Your task to perform on an android device: Empty the shopping cart on bestbuy.com. Search for usb-c on bestbuy.com, select the first entry, add it to the cart, then select checkout. Image 0: 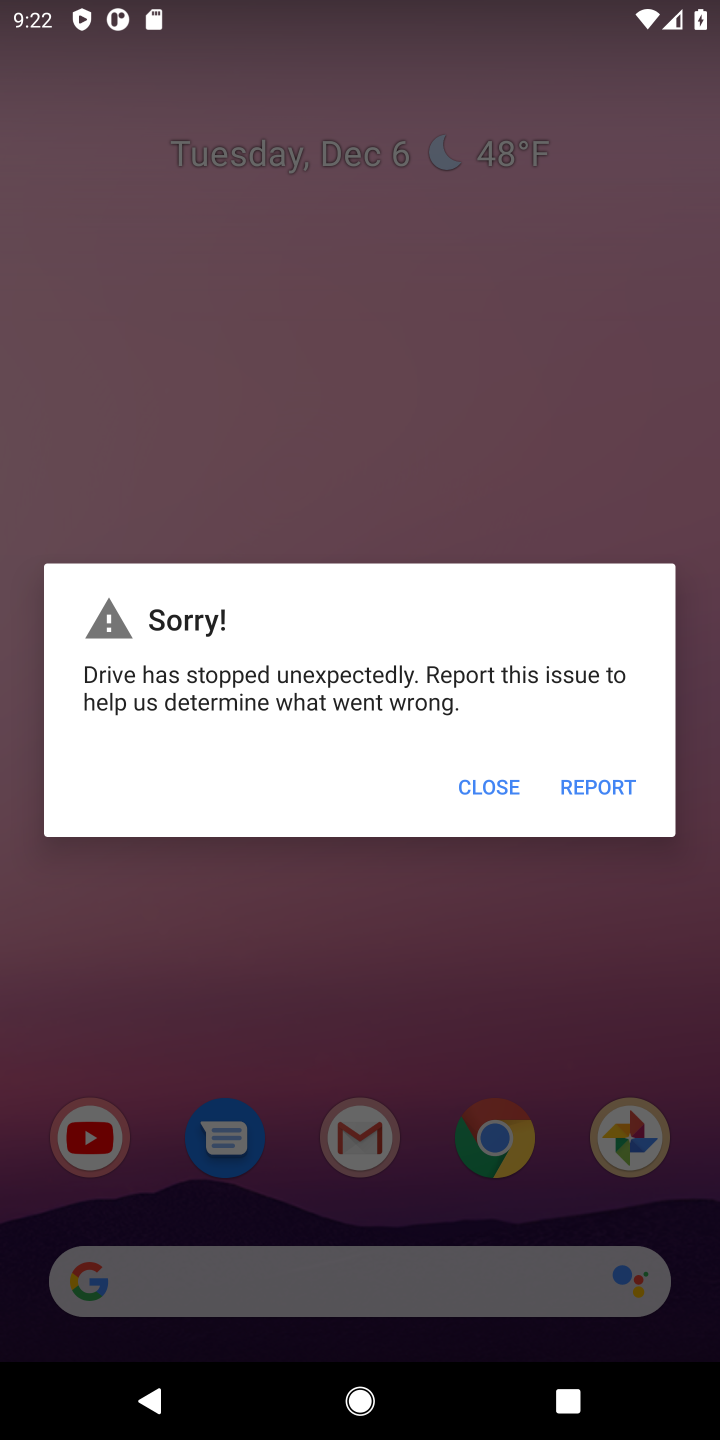
Step 0: press home button
Your task to perform on an android device: Empty the shopping cart on bestbuy.com. Search for usb-c on bestbuy.com, select the first entry, add it to the cart, then select checkout. Image 1: 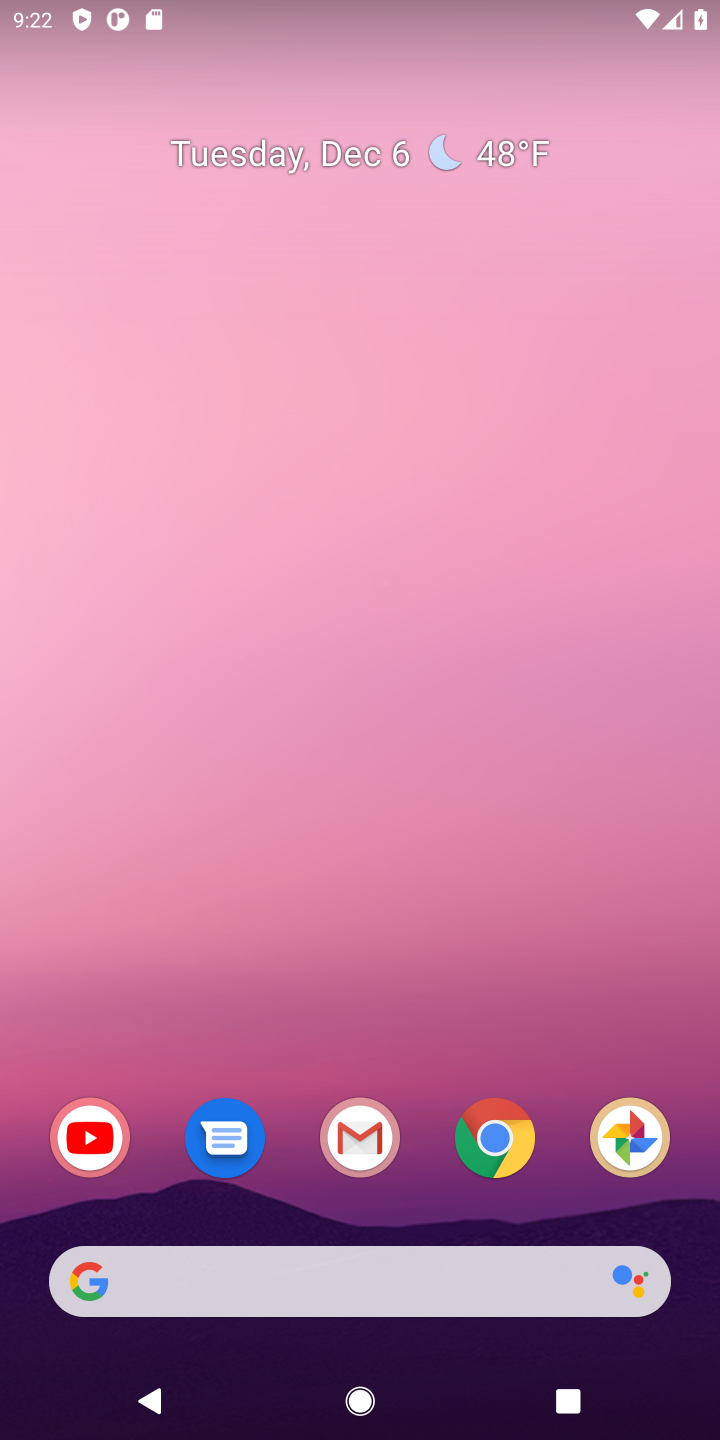
Step 1: click (517, 1139)
Your task to perform on an android device: Empty the shopping cart on bestbuy.com. Search for usb-c on bestbuy.com, select the first entry, add it to the cart, then select checkout. Image 2: 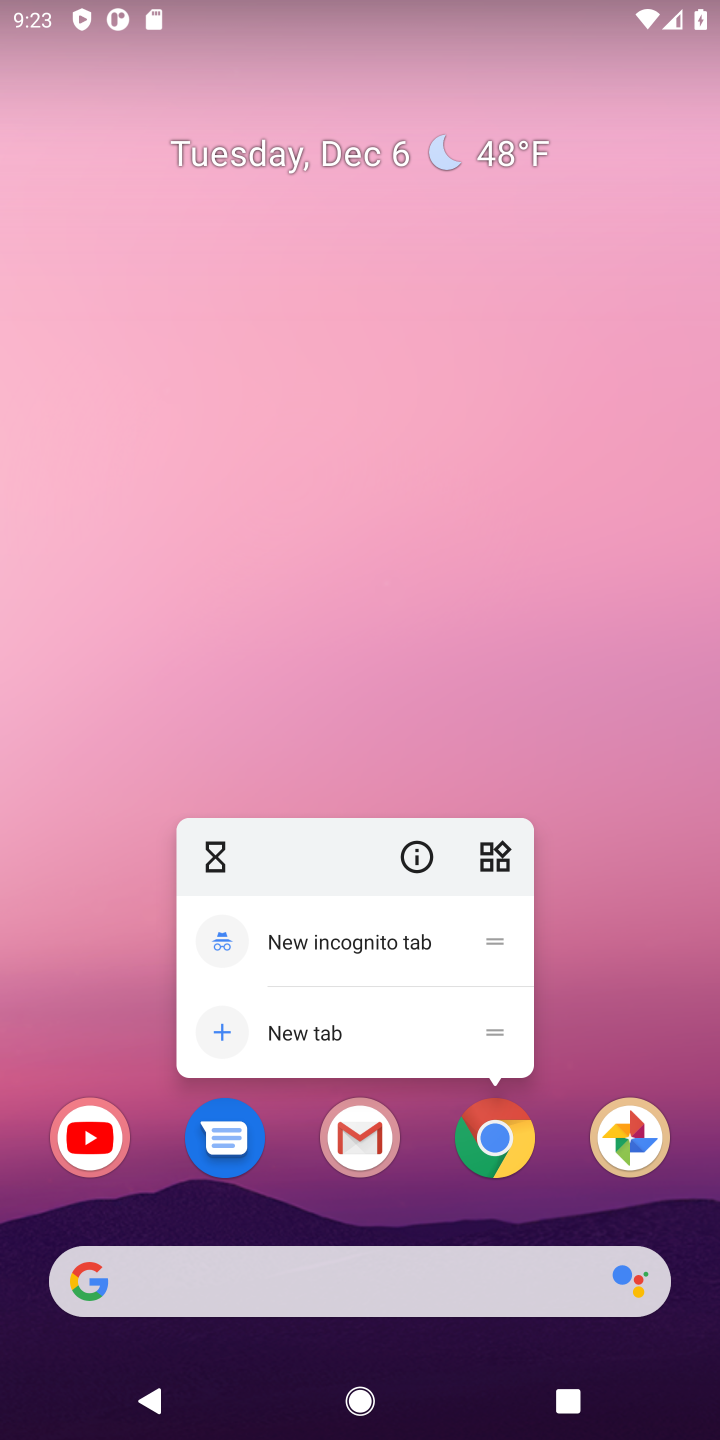
Step 2: click (517, 1139)
Your task to perform on an android device: Empty the shopping cart on bestbuy.com. Search for usb-c on bestbuy.com, select the first entry, add it to the cart, then select checkout. Image 3: 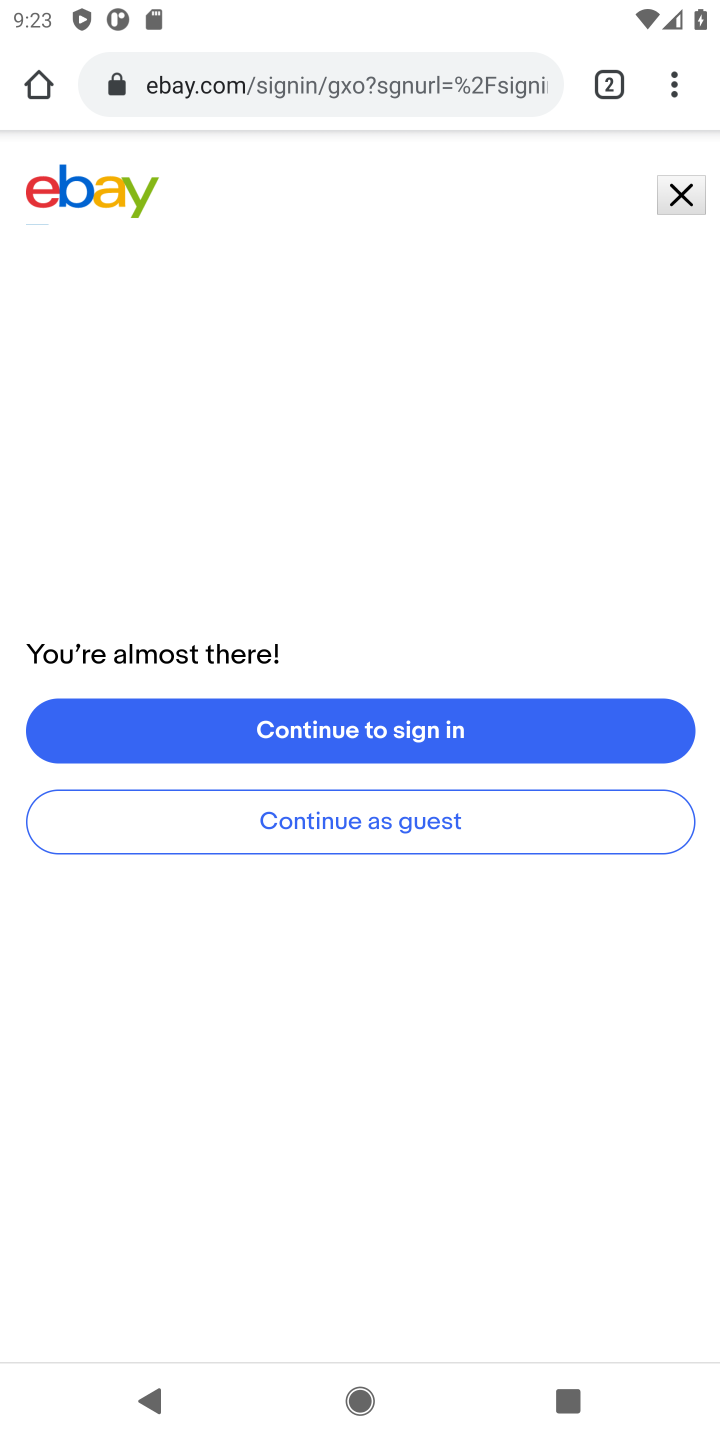
Step 3: click (280, 92)
Your task to perform on an android device: Empty the shopping cart on bestbuy.com. Search for usb-c on bestbuy.com, select the first entry, add it to the cart, then select checkout. Image 4: 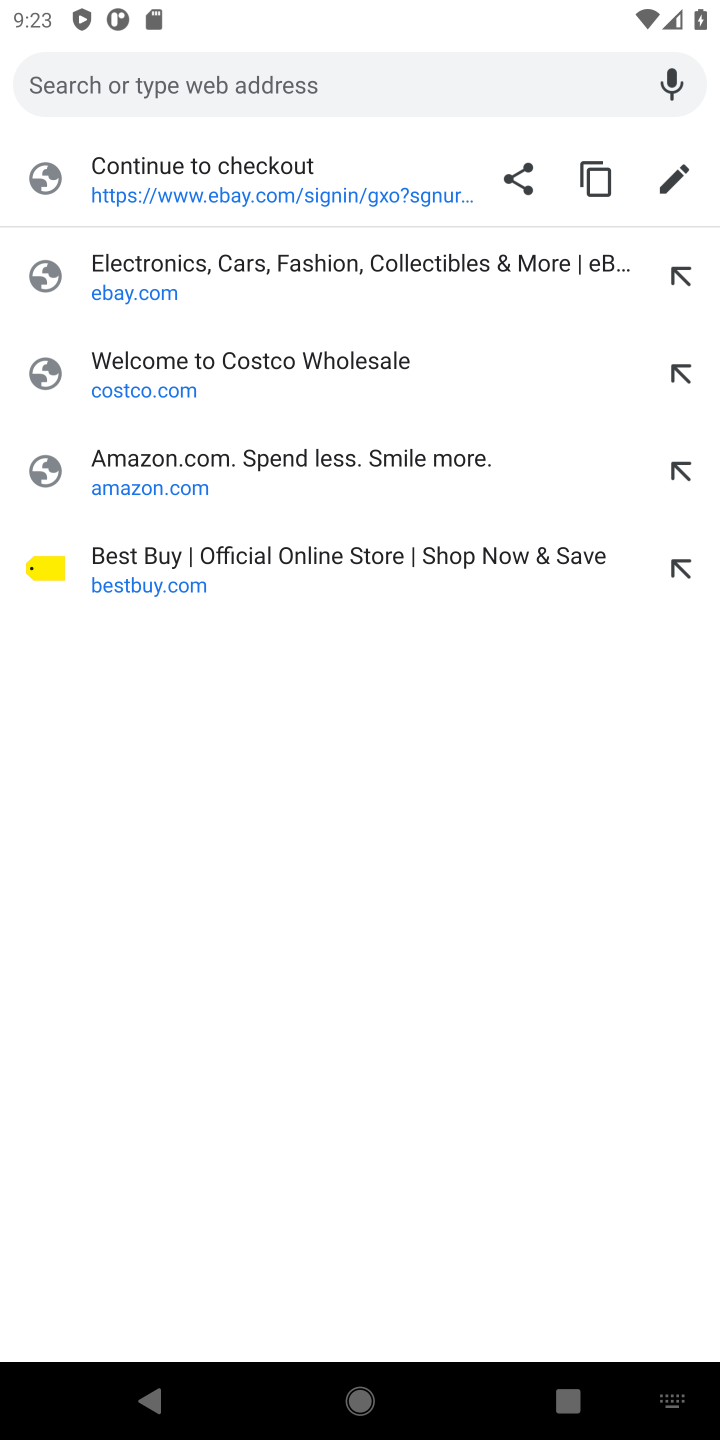
Step 4: click (134, 574)
Your task to perform on an android device: Empty the shopping cart on bestbuy.com. Search for usb-c on bestbuy.com, select the first entry, add it to the cart, then select checkout. Image 5: 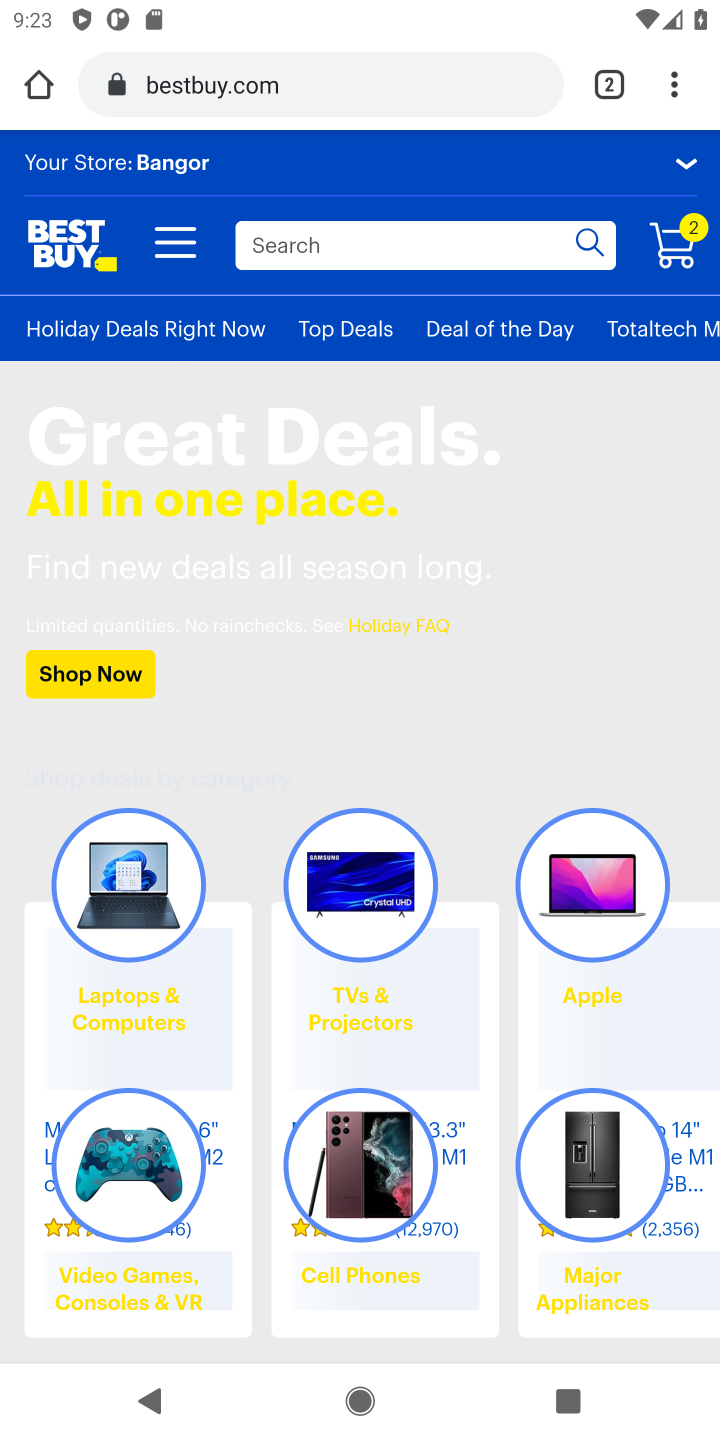
Step 5: click (675, 242)
Your task to perform on an android device: Empty the shopping cart on bestbuy.com. Search for usb-c on bestbuy.com, select the first entry, add it to the cart, then select checkout. Image 6: 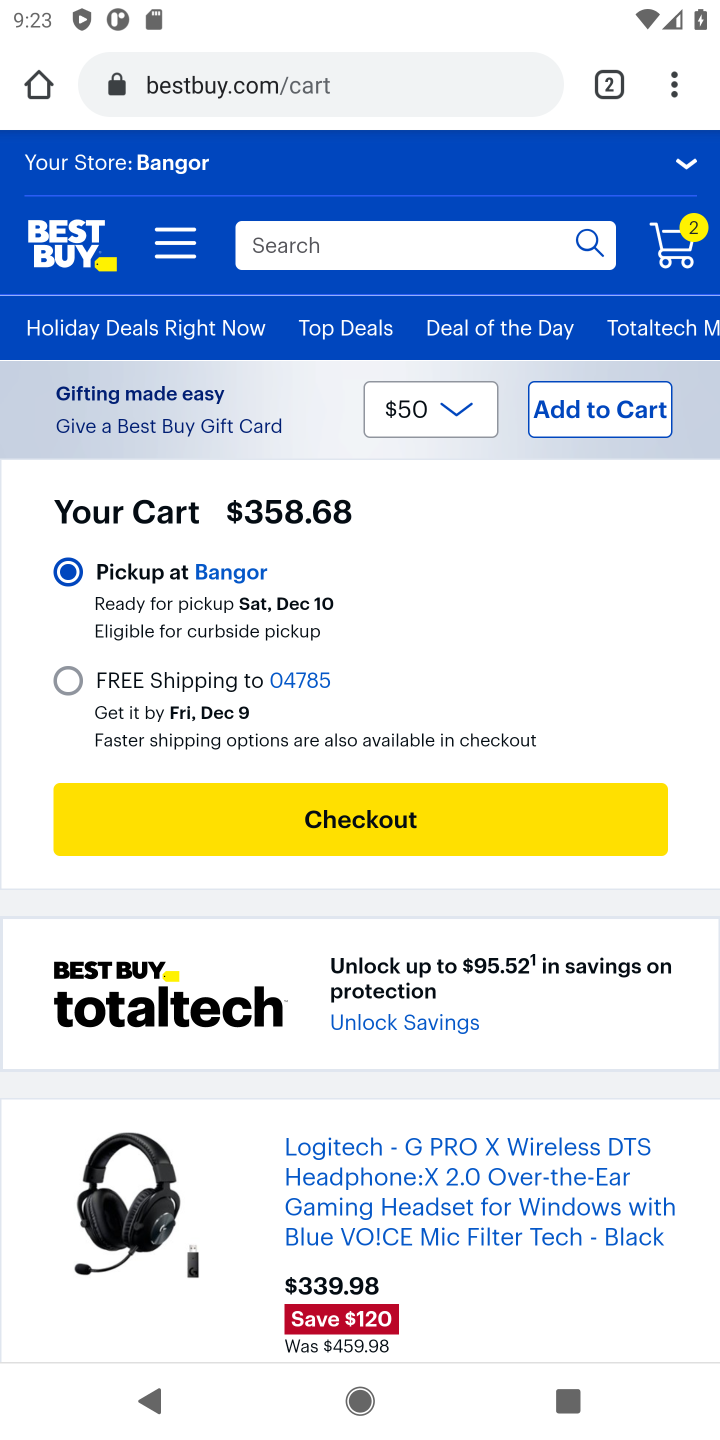
Step 6: drag from (578, 799) to (532, 386)
Your task to perform on an android device: Empty the shopping cart on bestbuy.com. Search for usb-c on bestbuy.com, select the first entry, add it to the cart, then select checkout. Image 7: 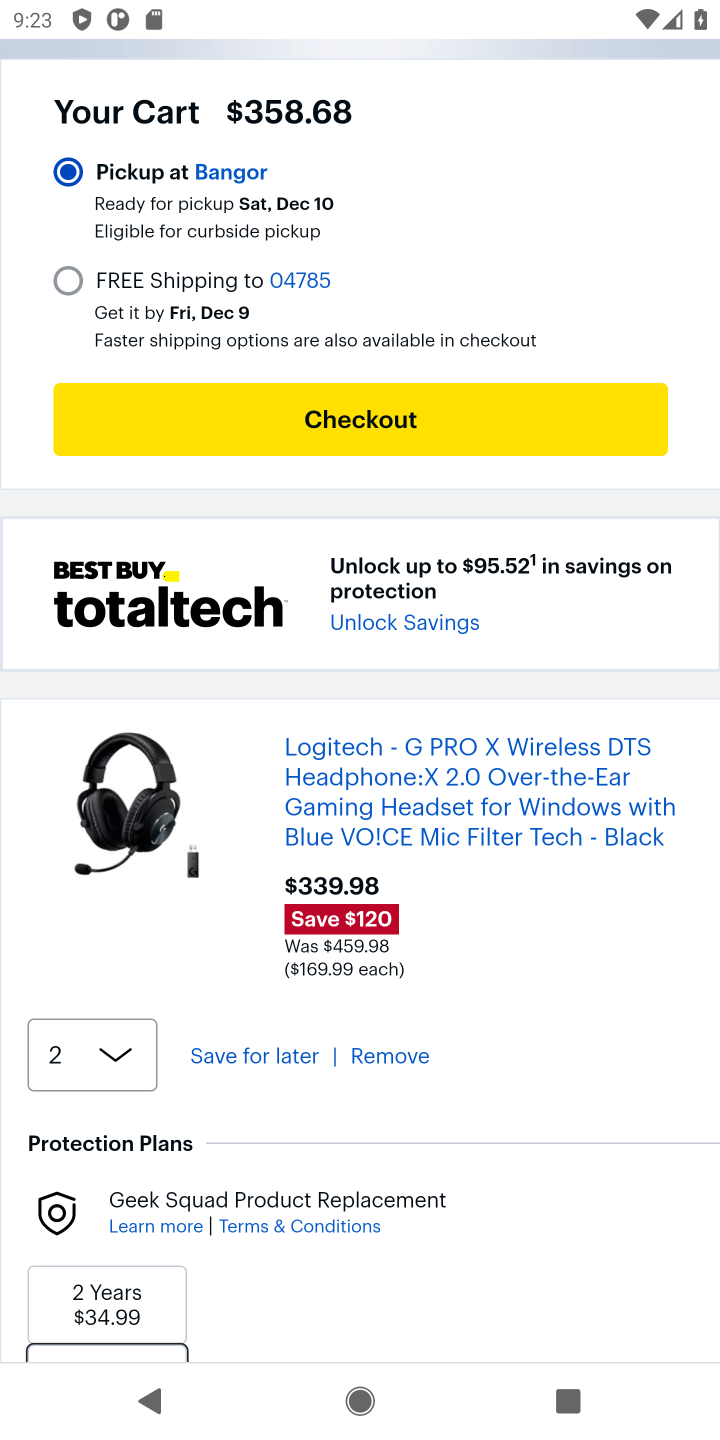
Step 7: click (374, 1064)
Your task to perform on an android device: Empty the shopping cart on bestbuy.com. Search for usb-c on bestbuy.com, select the first entry, add it to the cart, then select checkout. Image 8: 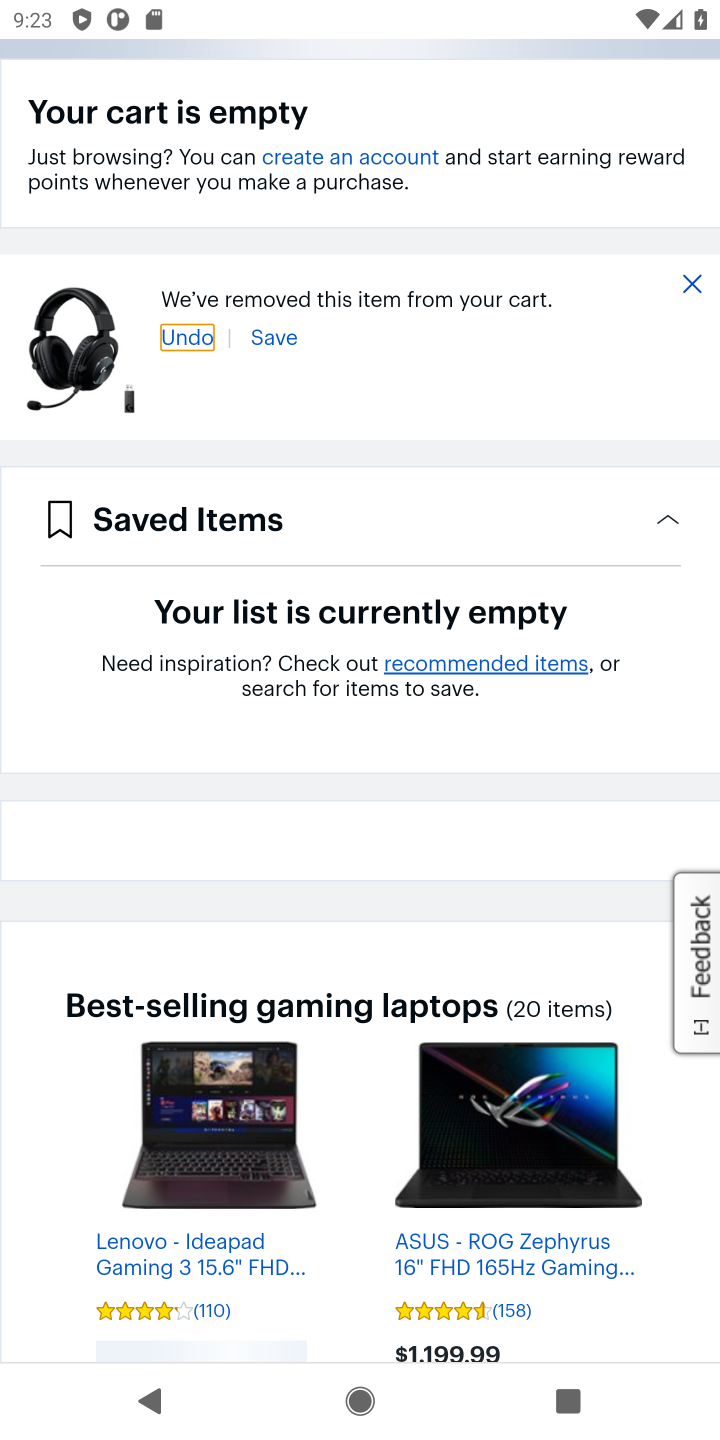
Step 8: drag from (474, 477) to (410, 903)
Your task to perform on an android device: Empty the shopping cart on bestbuy.com. Search for usb-c on bestbuy.com, select the first entry, add it to the cart, then select checkout. Image 9: 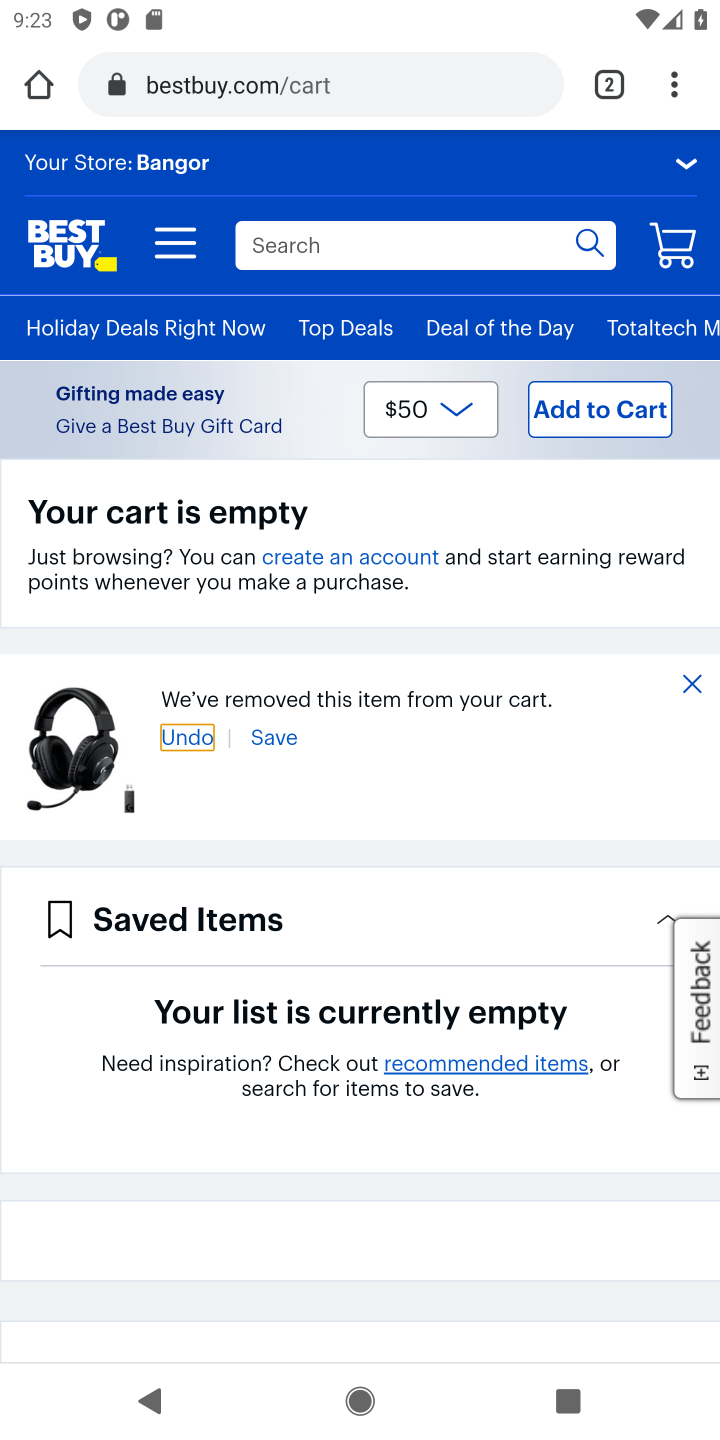
Step 9: click (254, 255)
Your task to perform on an android device: Empty the shopping cart on bestbuy.com. Search for usb-c on bestbuy.com, select the first entry, add it to the cart, then select checkout. Image 10: 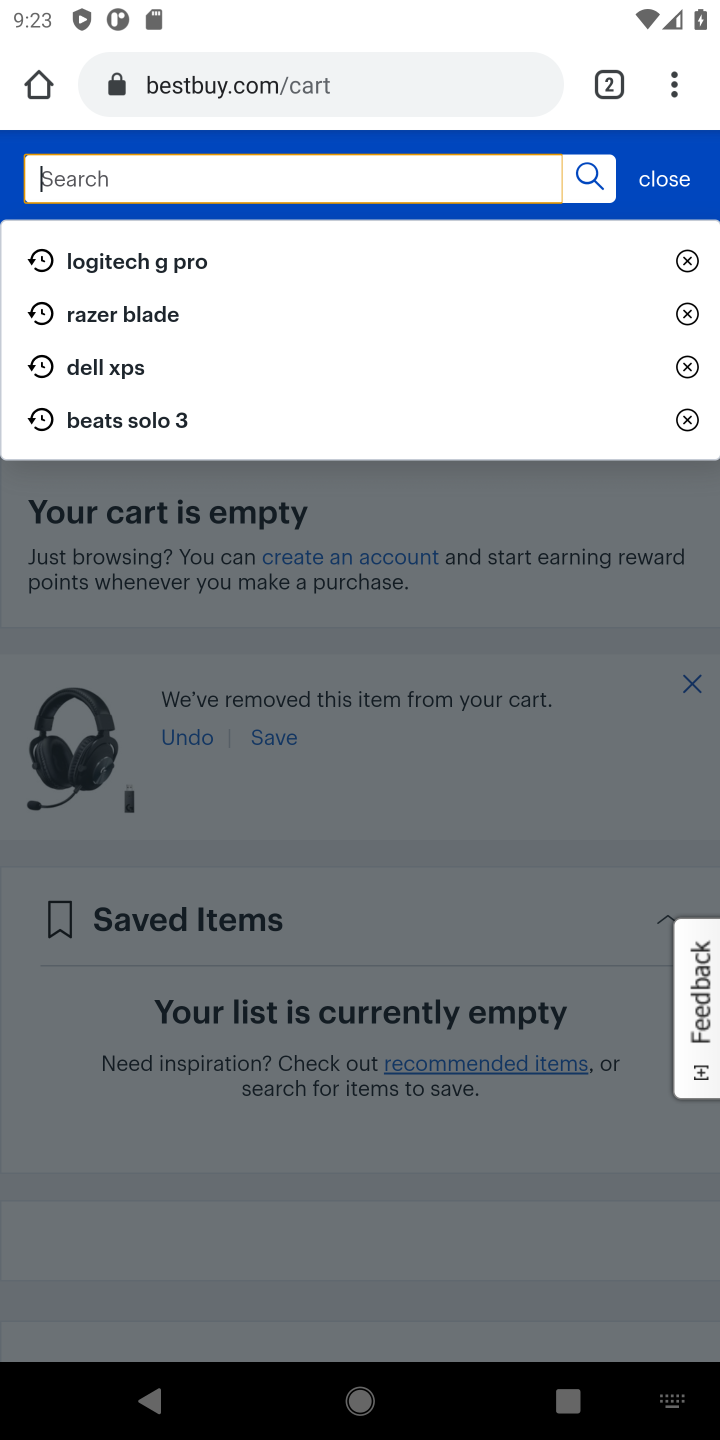
Step 10: type "usb-c"
Your task to perform on an android device: Empty the shopping cart on bestbuy.com. Search for usb-c on bestbuy.com, select the first entry, add it to the cart, then select checkout. Image 11: 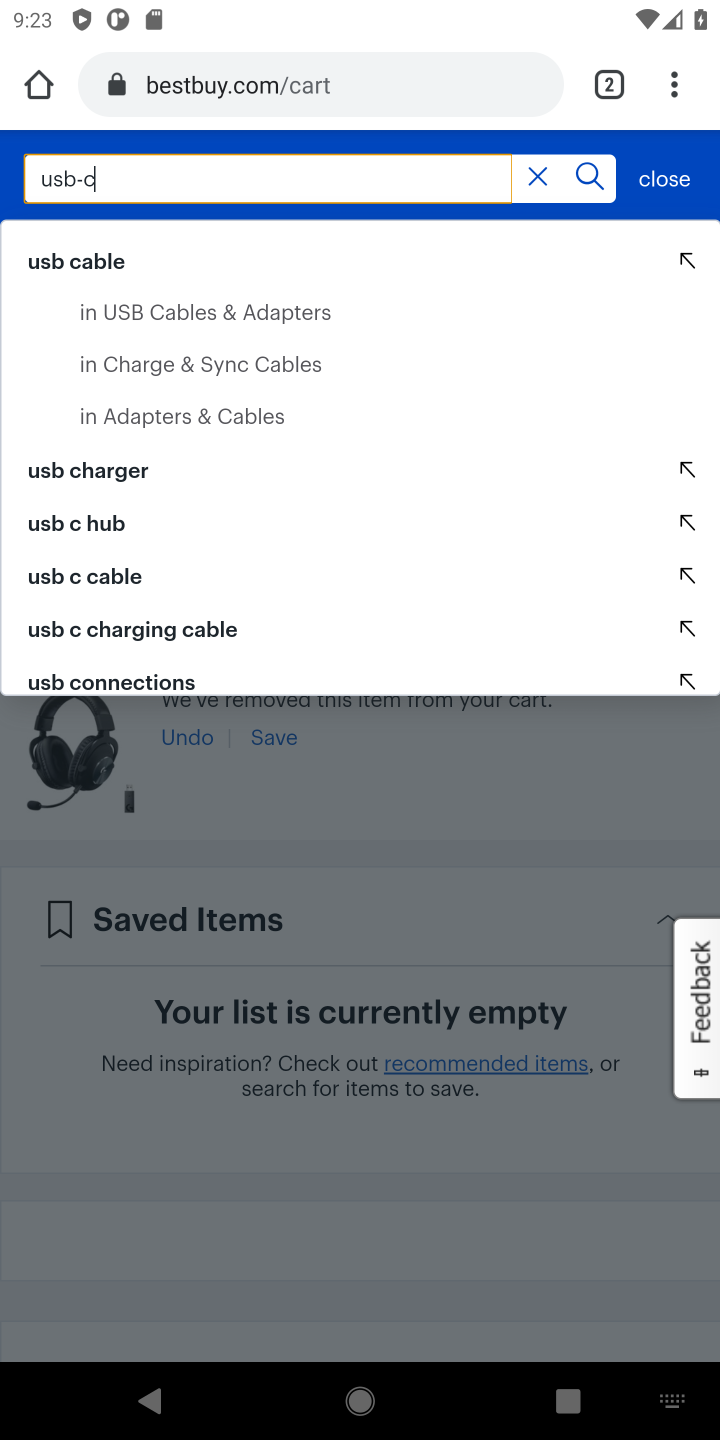
Step 11: click (594, 181)
Your task to perform on an android device: Empty the shopping cart on bestbuy.com. Search for usb-c on bestbuy.com, select the first entry, add it to the cart, then select checkout. Image 12: 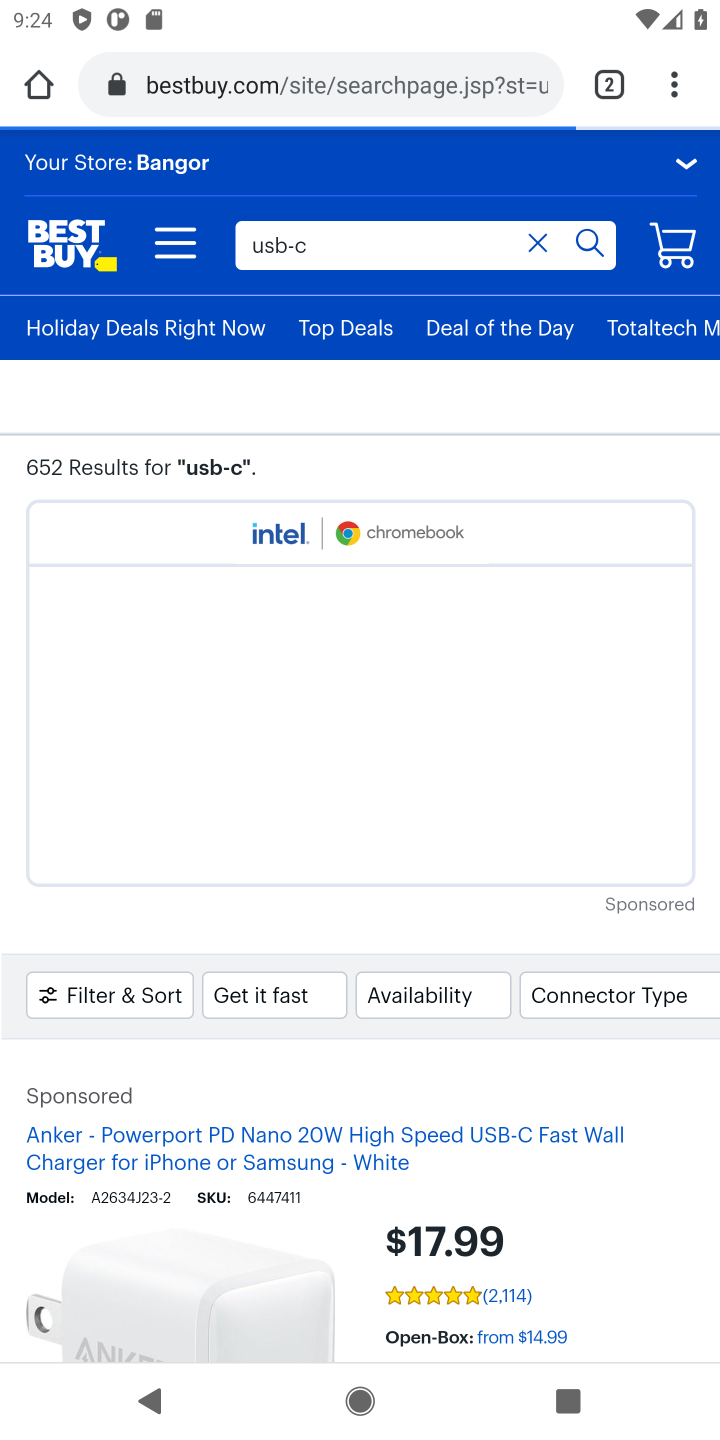
Step 12: drag from (335, 843) to (356, 378)
Your task to perform on an android device: Empty the shopping cart on bestbuy.com. Search for usb-c on bestbuy.com, select the first entry, add it to the cart, then select checkout. Image 13: 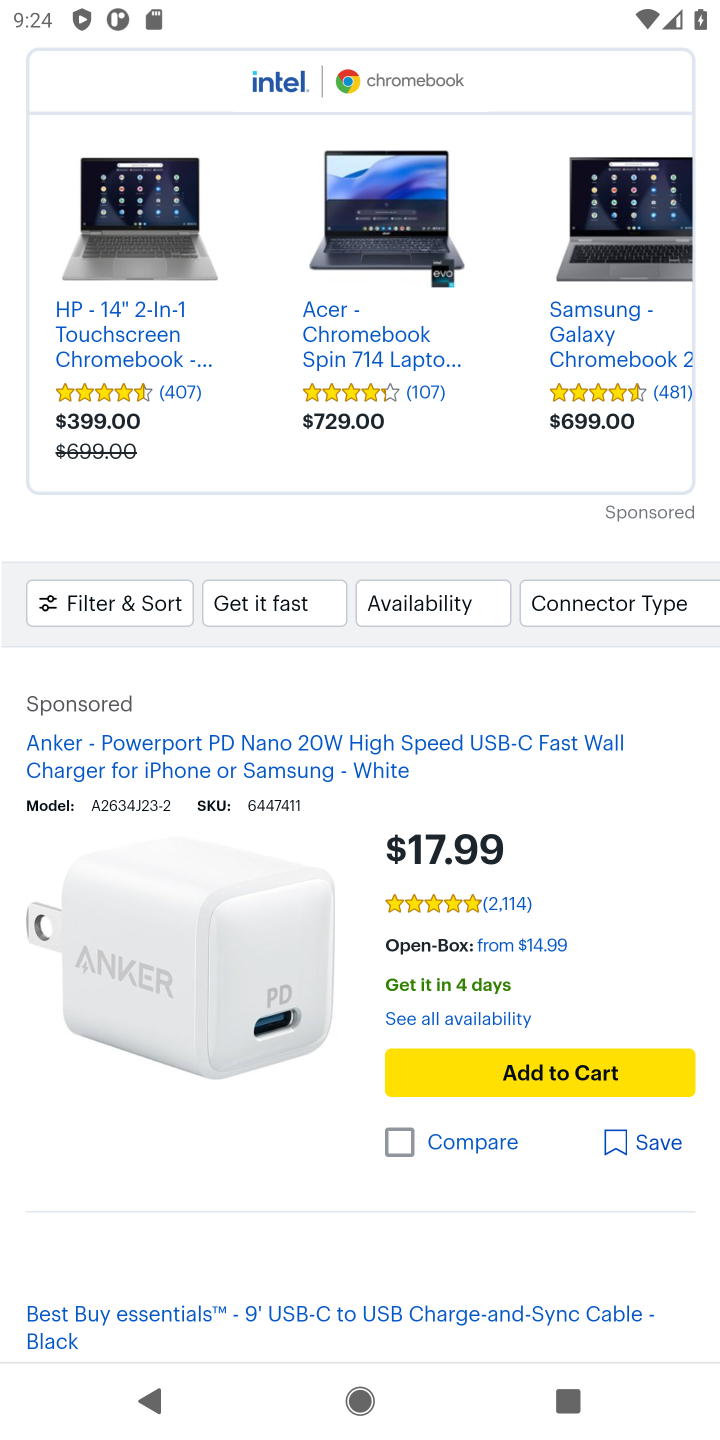
Step 13: click (500, 1068)
Your task to perform on an android device: Empty the shopping cart on bestbuy.com. Search for usb-c on bestbuy.com, select the first entry, add it to the cart, then select checkout. Image 14: 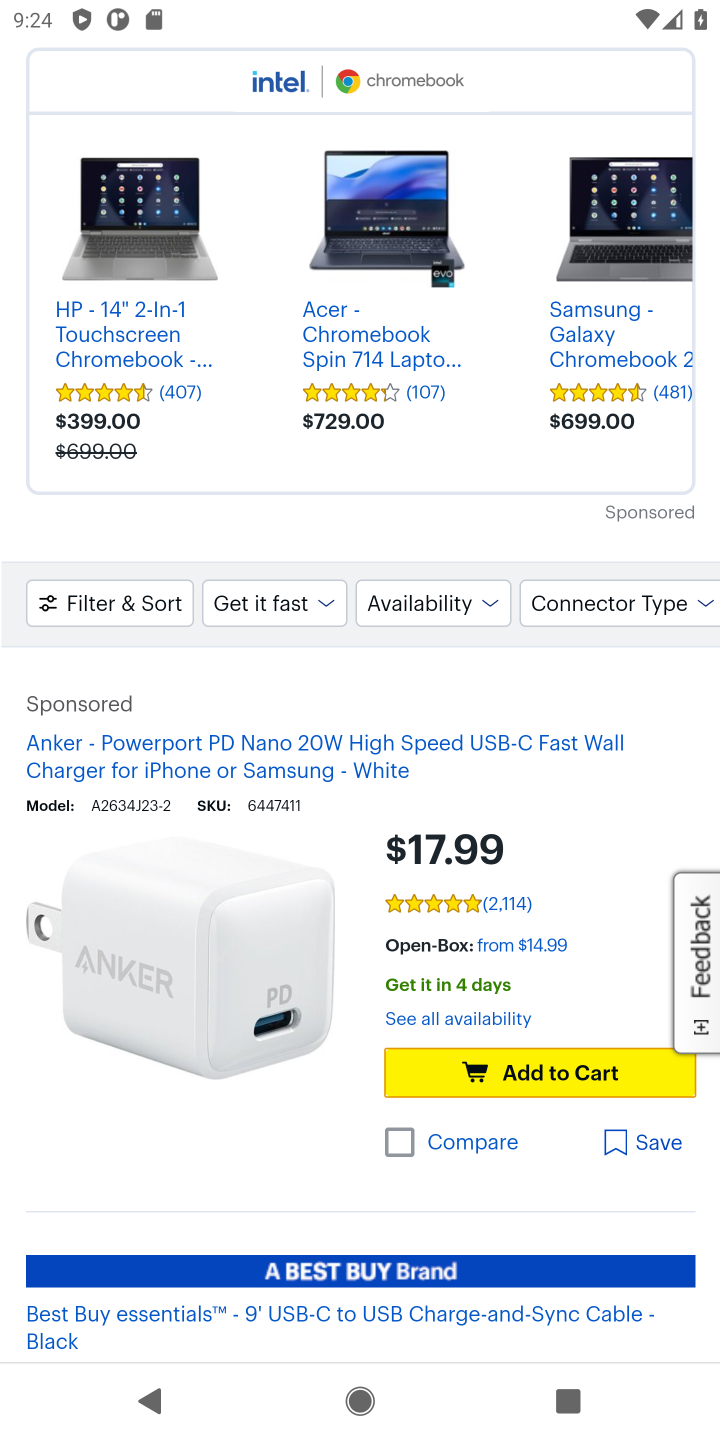
Step 14: click (500, 1068)
Your task to perform on an android device: Empty the shopping cart on bestbuy.com. Search for usb-c on bestbuy.com, select the first entry, add it to the cart, then select checkout. Image 15: 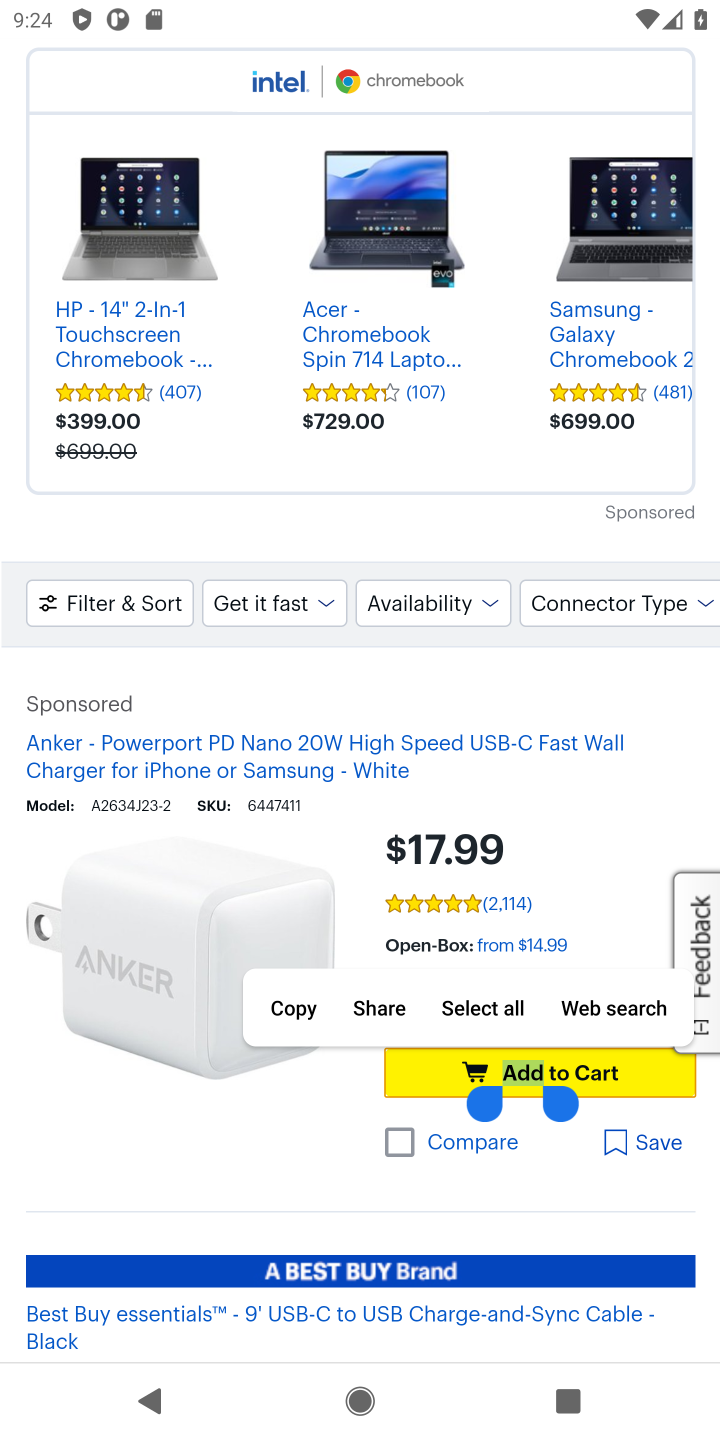
Step 15: click (585, 1078)
Your task to perform on an android device: Empty the shopping cart on bestbuy.com. Search for usb-c on bestbuy.com, select the first entry, add it to the cart, then select checkout. Image 16: 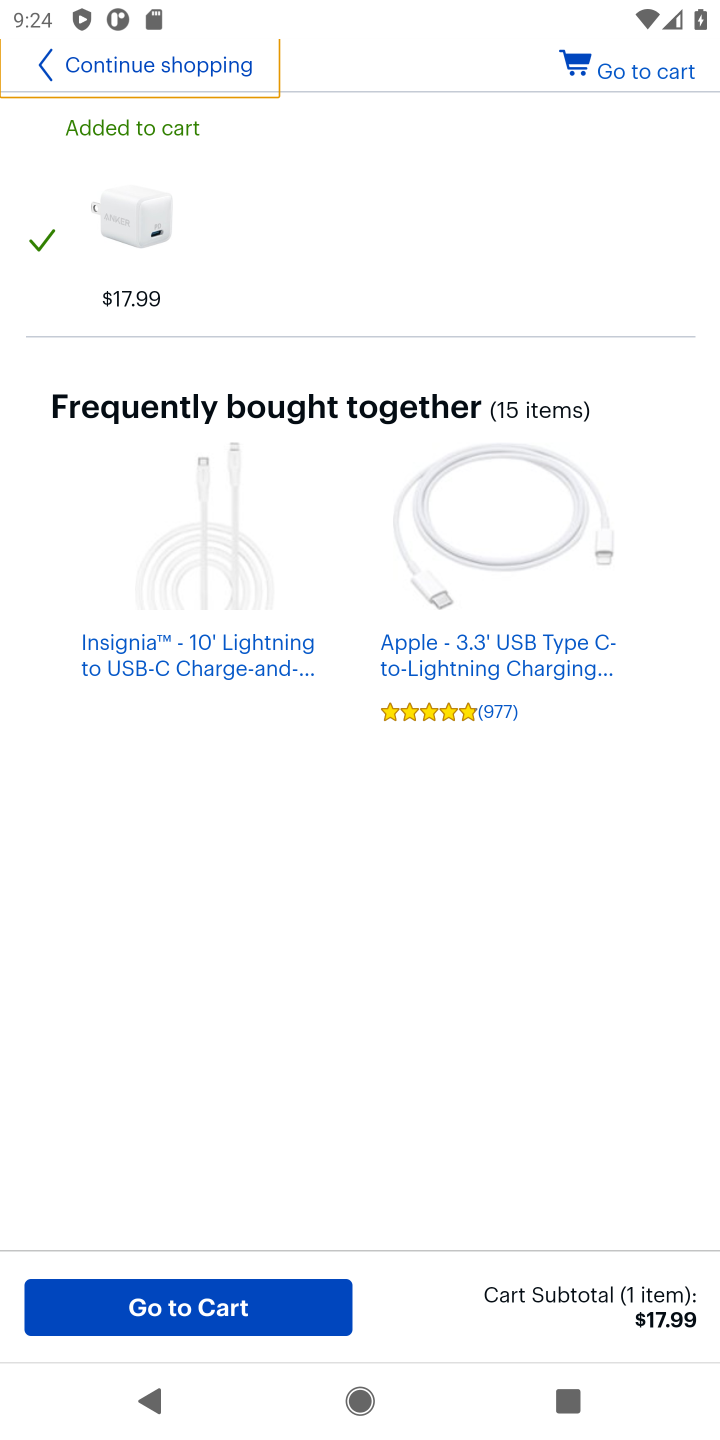
Step 16: click (631, 72)
Your task to perform on an android device: Empty the shopping cart on bestbuy.com. Search for usb-c on bestbuy.com, select the first entry, add it to the cart, then select checkout. Image 17: 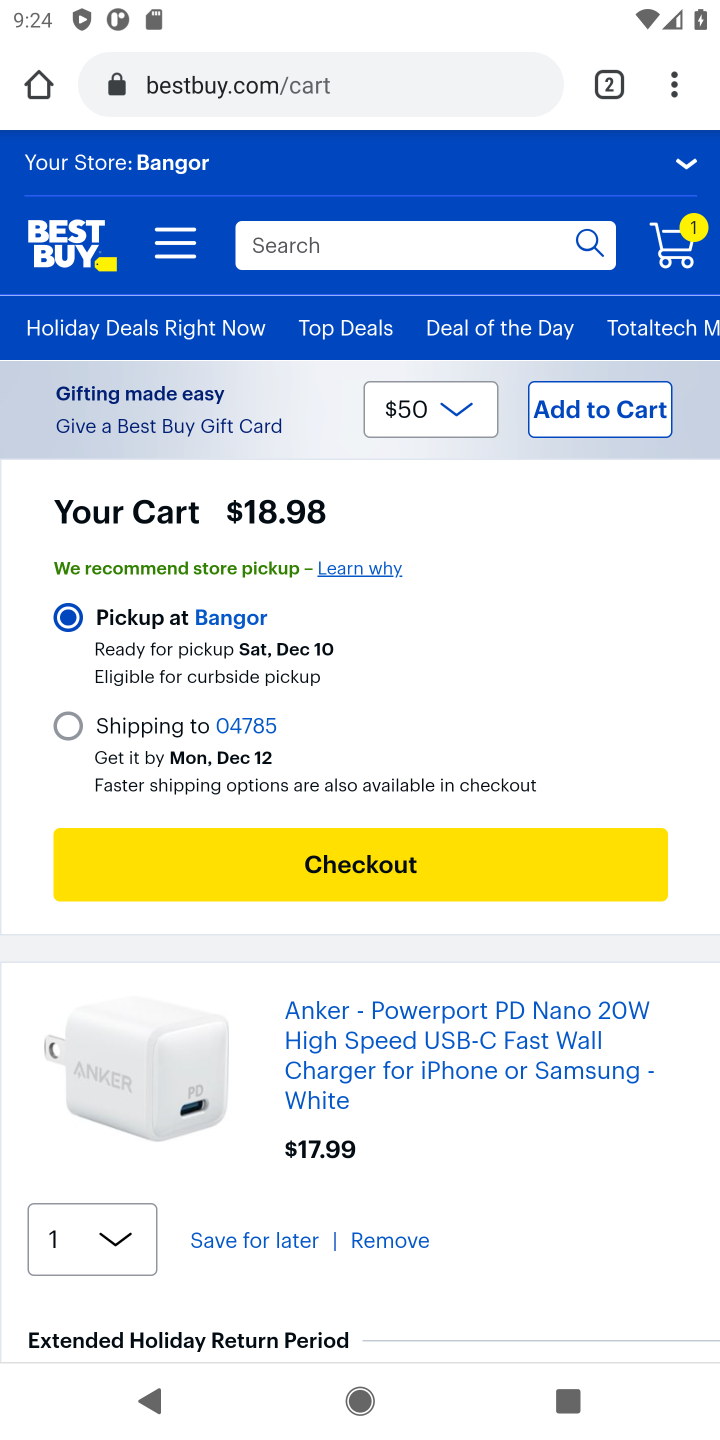
Step 17: click (352, 850)
Your task to perform on an android device: Empty the shopping cart on bestbuy.com. Search for usb-c on bestbuy.com, select the first entry, add it to the cart, then select checkout. Image 18: 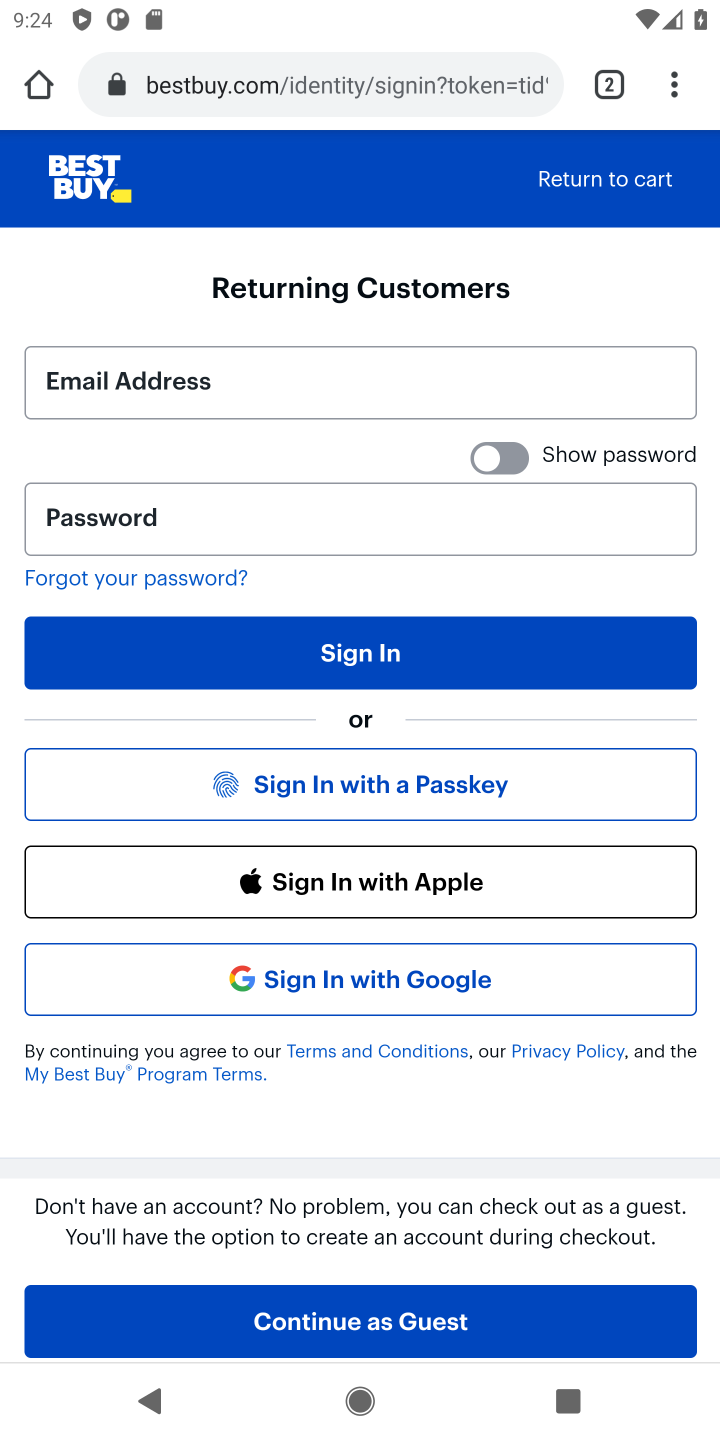
Step 18: task complete